Your task to perform on an android device: Open Google Chrome and click the shortcut for Amazon.com Image 0: 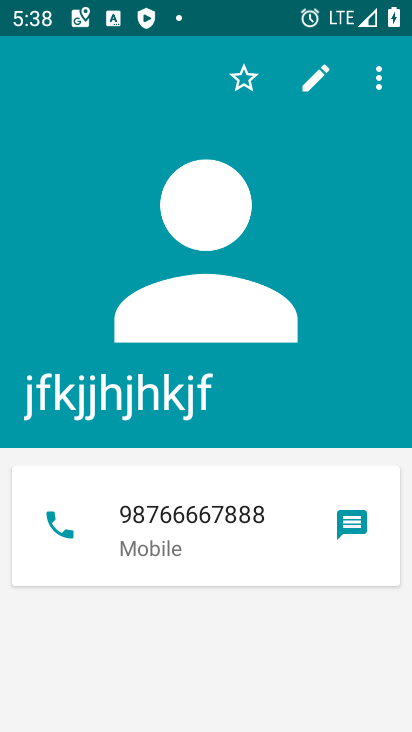
Step 0: press home button
Your task to perform on an android device: Open Google Chrome and click the shortcut for Amazon.com Image 1: 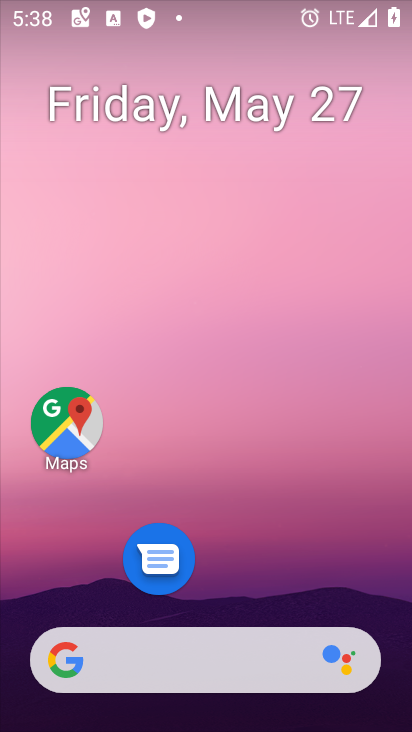
Step 1: drag from (284, 659) to (335, 38)
Your task to perform on an android device: Open Google Chrome and click the shortcut for Amazon.com Image 2: 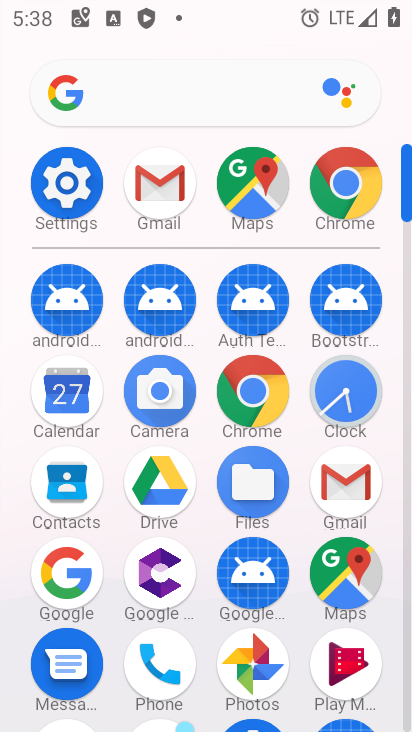
Step 2: click (259, 396)
Your task to perform on an android device: Open Google Chrome and click the shortcut for Amazon.com Image 3: 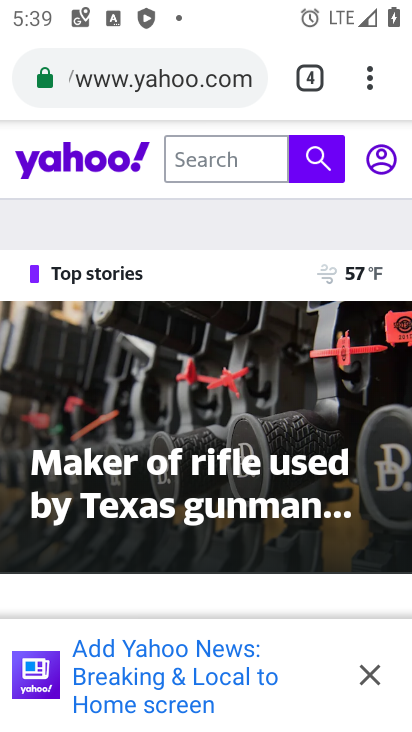
Step 3: drag from (388, 61) to (262, 155)
Your task to perform on an android device: Open Google Chrome and click the shortcut for Amazon.com Image 4: 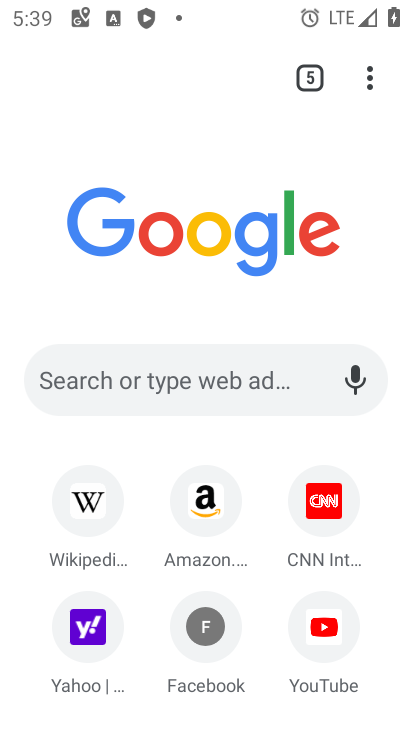
Step 4: click (209, 505)
Your task to perform on an android device: Open Google Chrome and click the shortcut for Amazon.com Image 5: 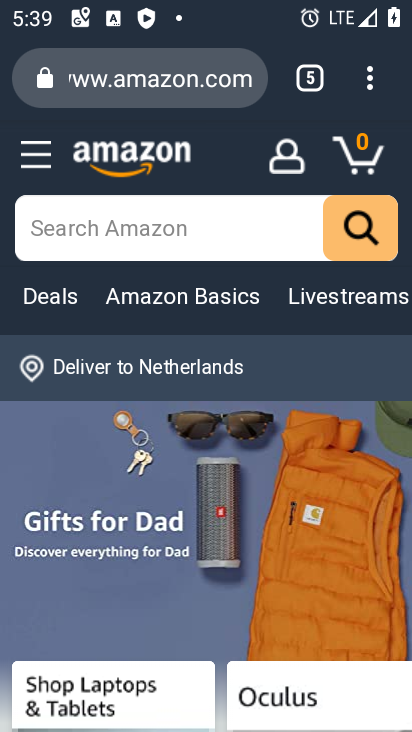
Step 5: drag from (383, 72) to (149, 471)
Your task to perform on an android device: Open Google Chrome and click the shortcut for Amazon.com Image 6: 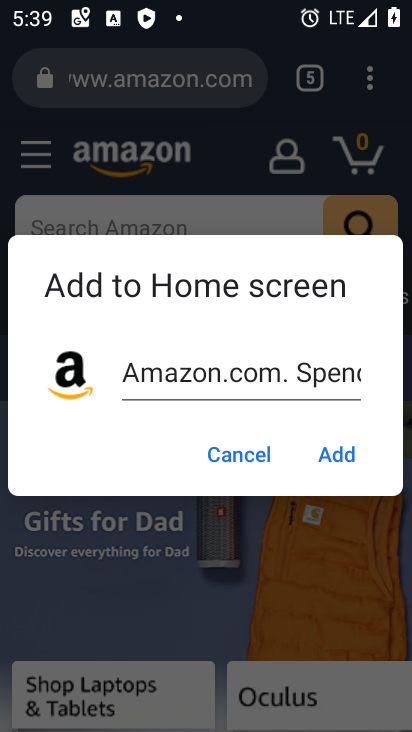
Step 6: click (332, 464)
Your task to perform on an android device: Open Google Chrome and click the shortcut for Amazon.com Image 7: 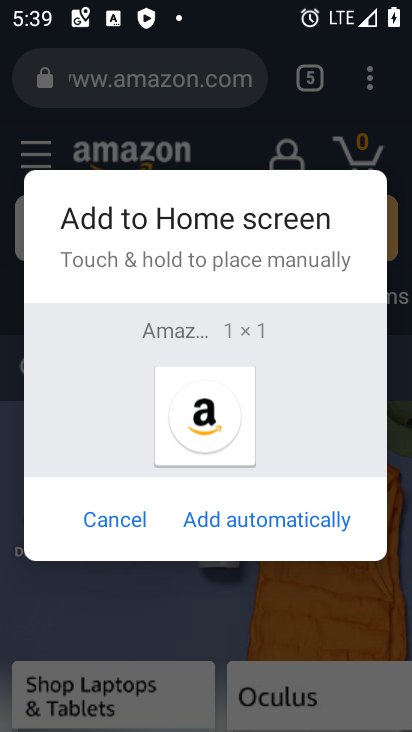
Step 7: task complete